Your task to perform on an android device: Go to battery settings Image 0: 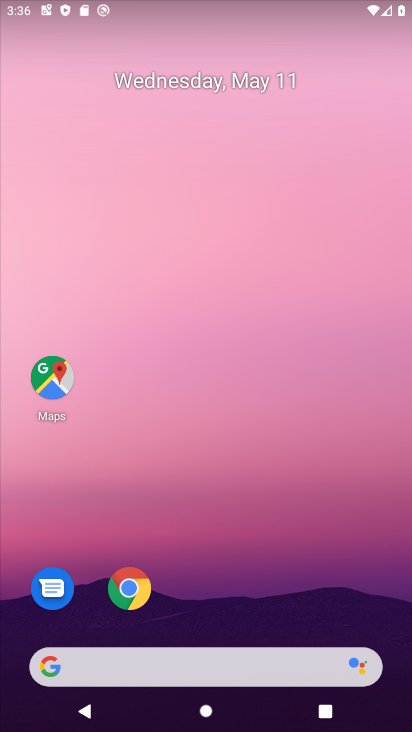
Step 0: drag from (258, 613) to (295, 6)
Your task to perform on an android device: Go to battery settings Image 1: 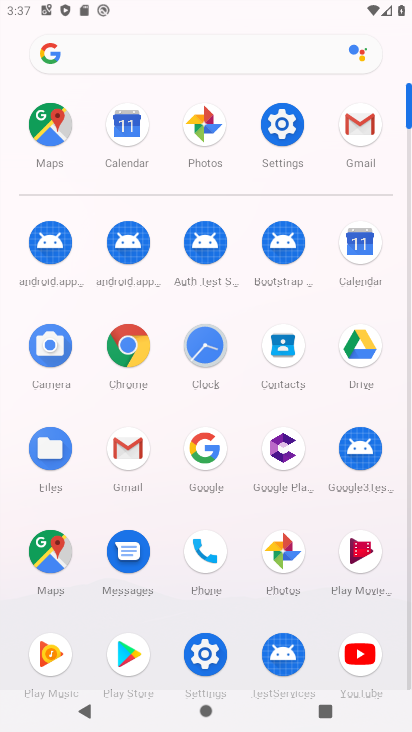
Step 1: click (299, 137)
Your task to perform on an android device: Go to battery settings Image 2: 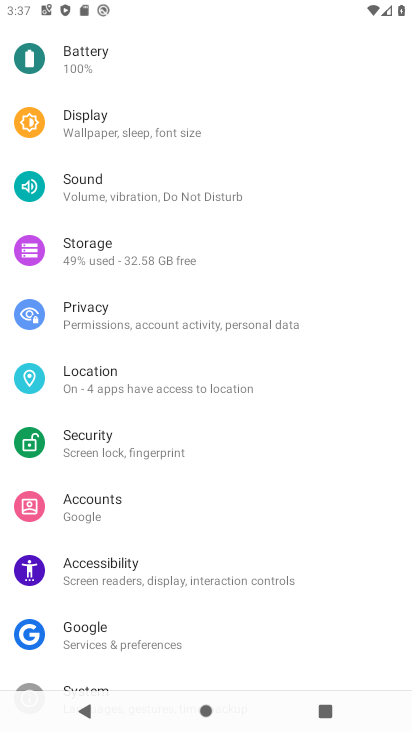
Step 2: click (85, 57)
Your task to perform on an android device: Go to battery settings Image 3: 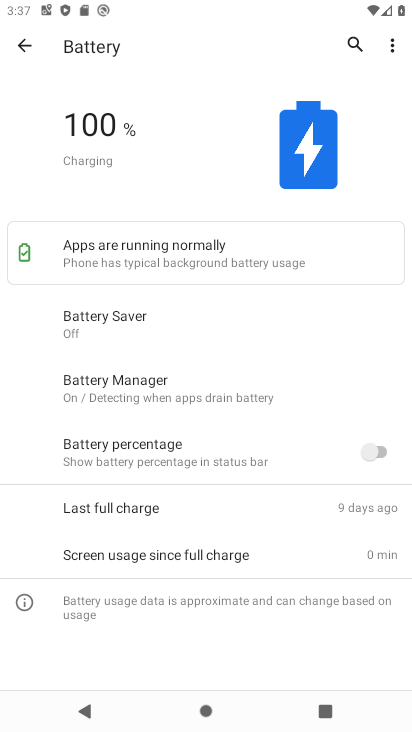
Step 3: task complete